Your task to perform on an android device: choose inbox layout in the gmail app Image 0: 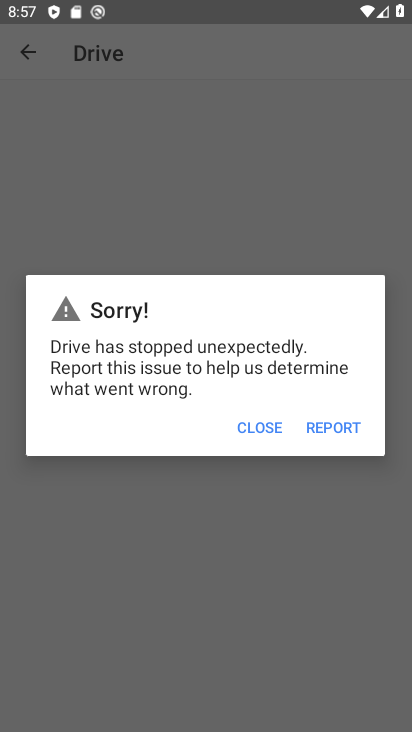
Step 0: press home button
Your task to perform on an android device: choose inbox layout in the gmail app Image 1: 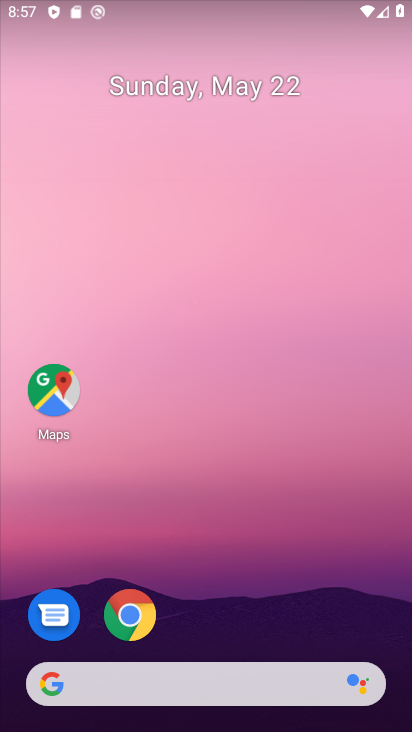
Step 1: drag from (265, 613) to (251, 285)
Your task to perform on an android device: choose inbox layout in the gmail app Image 2: 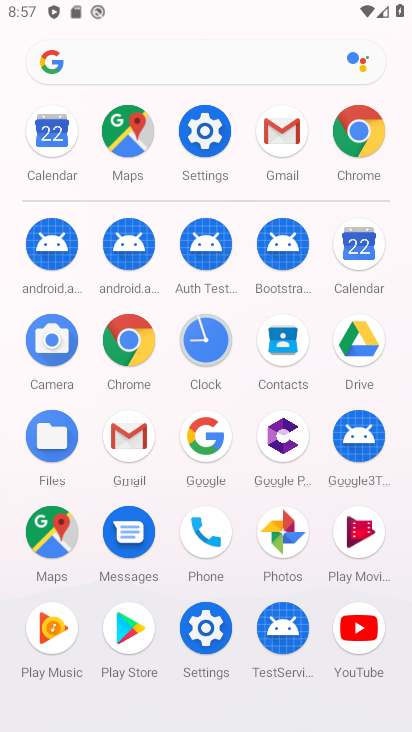
Step 2: click (124, 430)
Your task to perform on an android device: choose inbox layout in the gmail app Image 3: 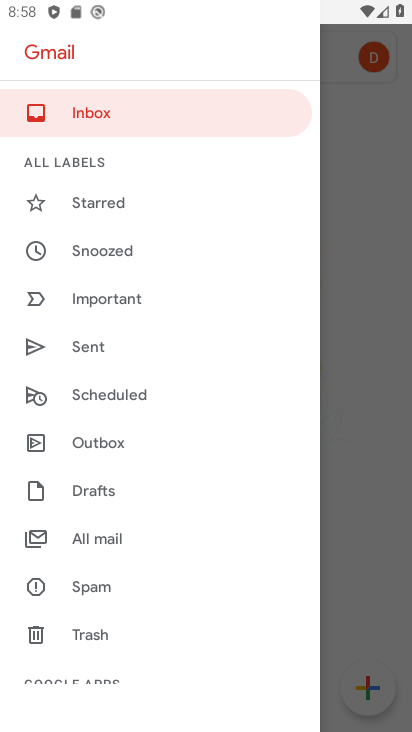
Step 3: drag from (150, 588) to (219, 129)
Your task to perform on an android device: choose inbox layout in the gmail app Image 4: 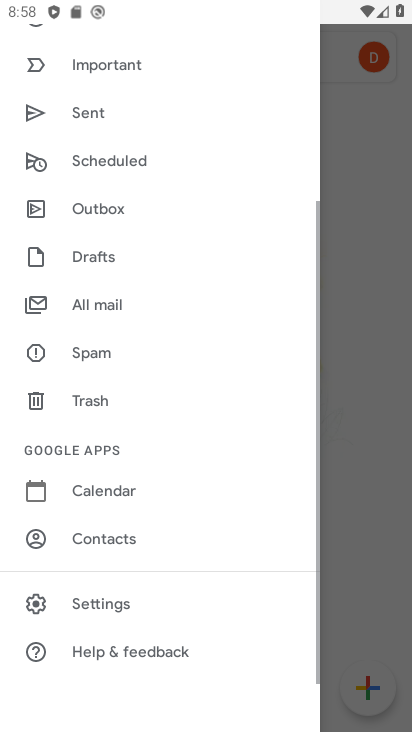
Step 4: click (100, 604)
Your task to perform on an android device: choose inbox layout in the gmail app Image 5: 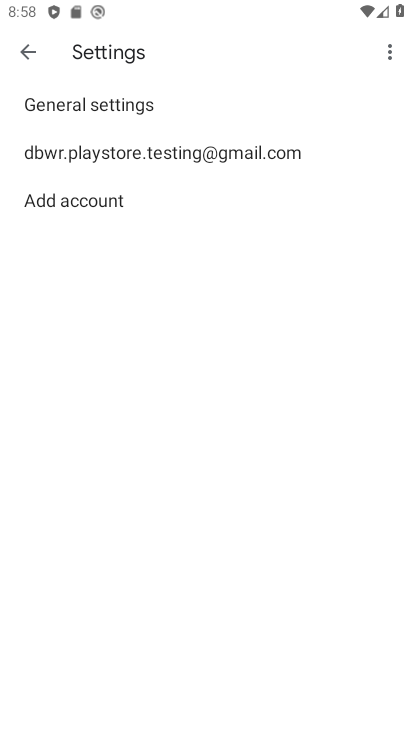
Step 5: click (148, 147)
Your task to perform on an android device: choose inbox layout in the gmail app Image 6: 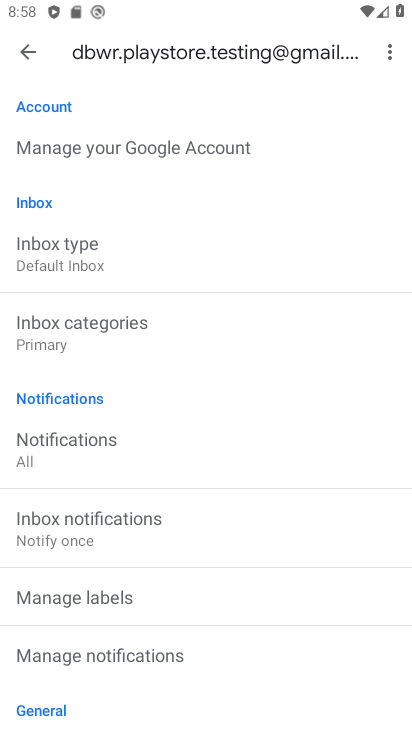
Step 6: click (101, 245)
Your task to perform on an android device: choose inbox layout in the gmail app Image 7: 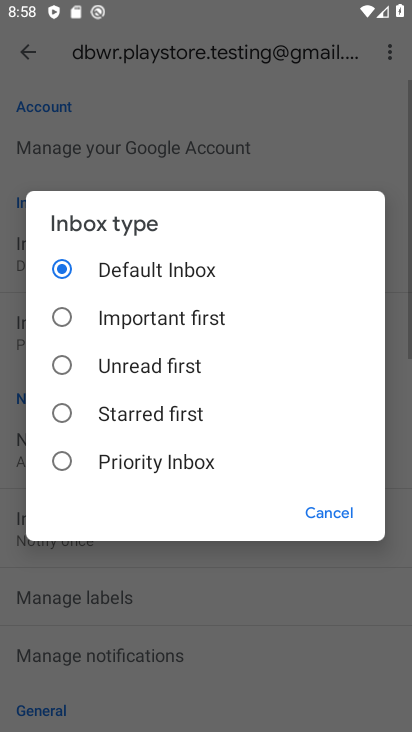
Step 7: click (143, 362)
Your task to perform on an android device: choose inbox layout in the gmail app Image 8: 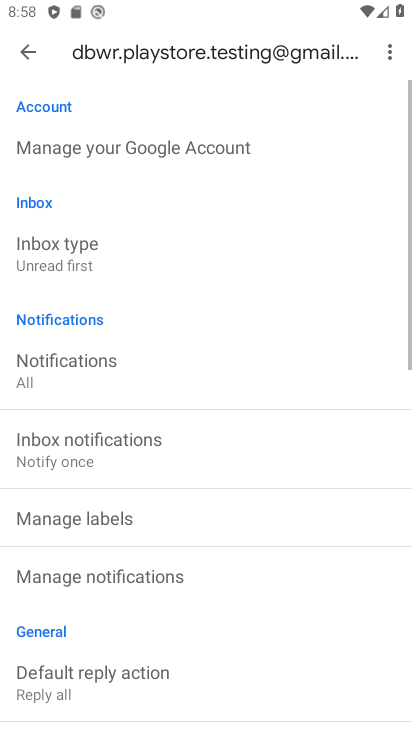
Step 8: task complete